Your task to perform on an android device: open a new tab in the chrome app Image 0: 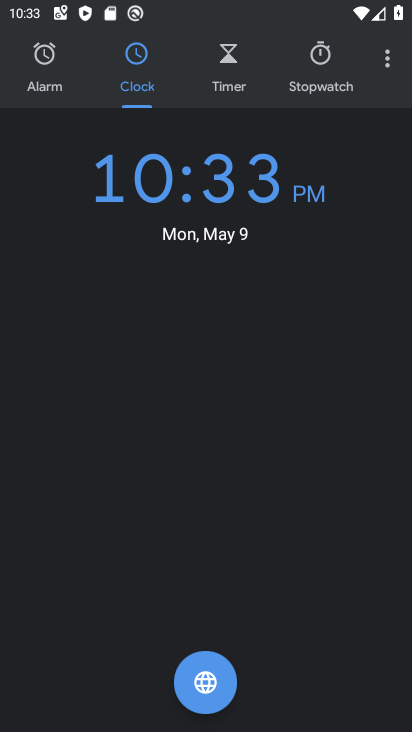
Step 0: press home button
Your task to perform on an android device: open a new tab in the chrome app Image 1: 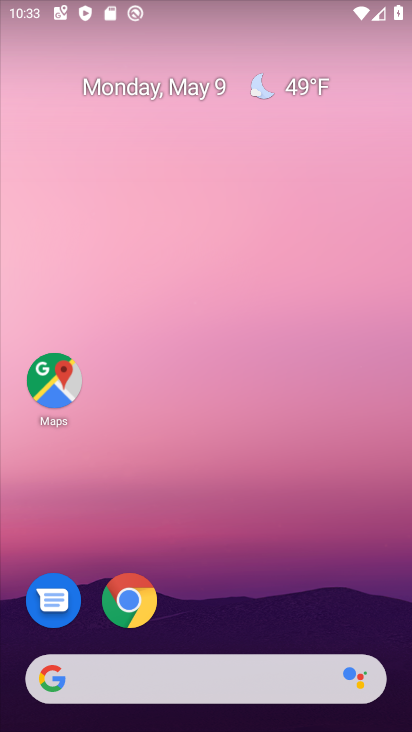
Step 1: drag from (365, 582) to (314, 199)
Your task to perform on an android device: open a new tab in the chrome app Image 2: 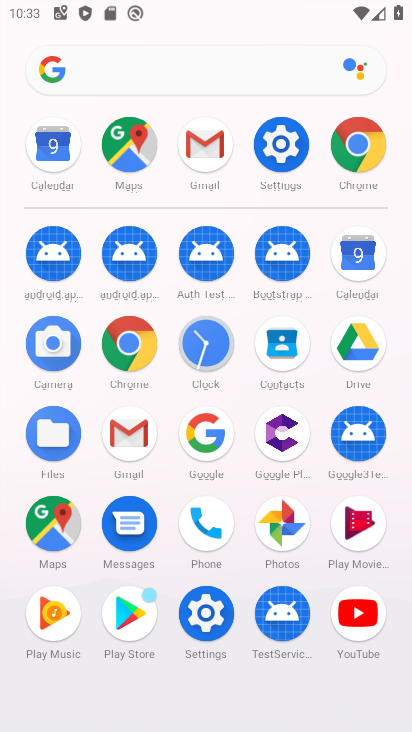
Step 2: click (126, 355)
Your task to perform on an android device: open a new tab in the chrome app Image 3: 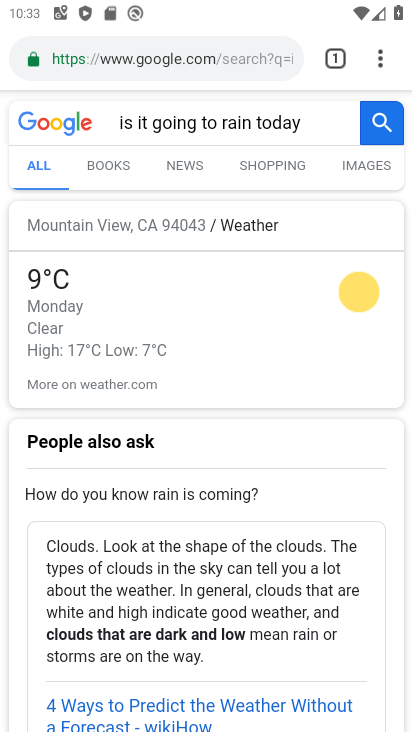
Step 3: click (334, 62)
Your task to perform on an android device: open a new tab in the chrome app Image 4: 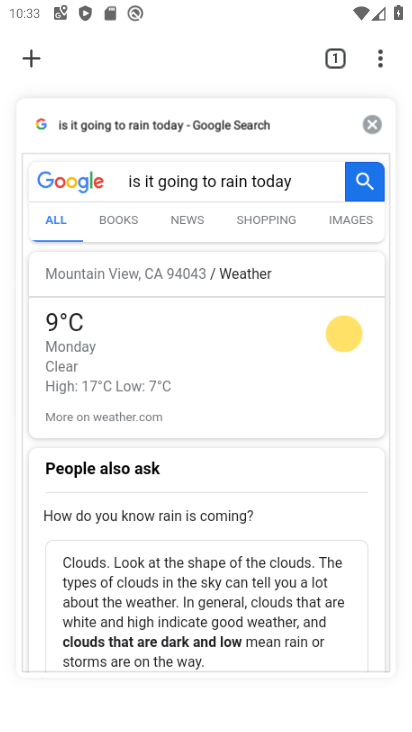
Step 4: click (33, 56)
Your task to perform on an android device: open a new tab in the chrome app Image 5: 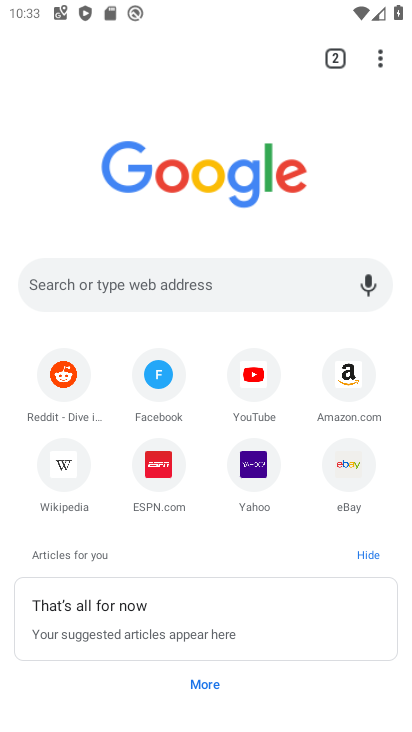
Step 5: task complete